Your task to perform on an android device: Go to calendar. Show me events next week Image 0: 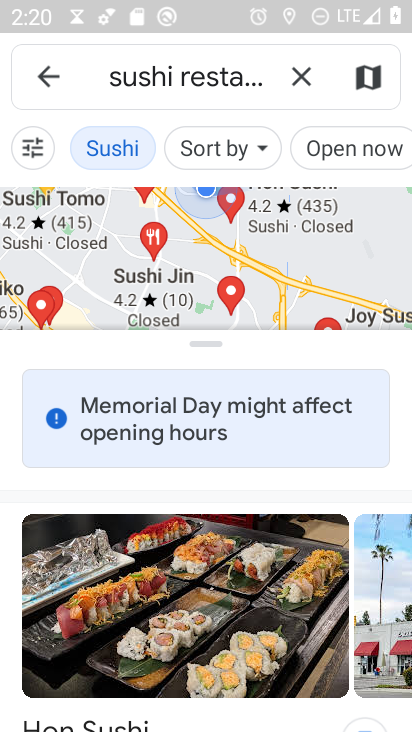
Step 0: press home button
Your task to perform on an android device: Go to calendar. Show me events next week Image 1: 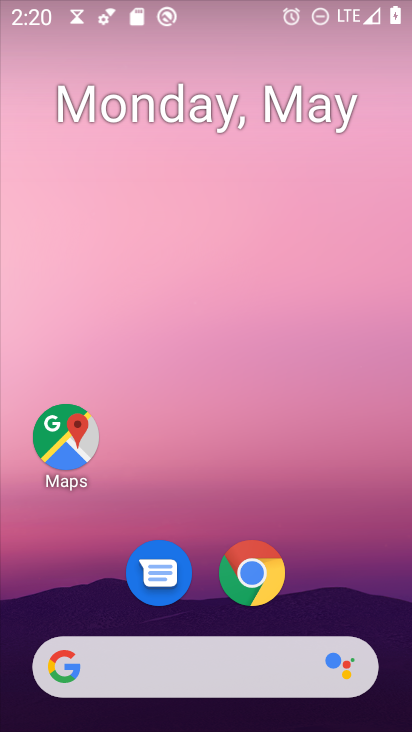
Step 1: drag from (246, 651) to (240, 33)
Your task to perform on an android device: Go to calendar. Show me events next week Image 2: 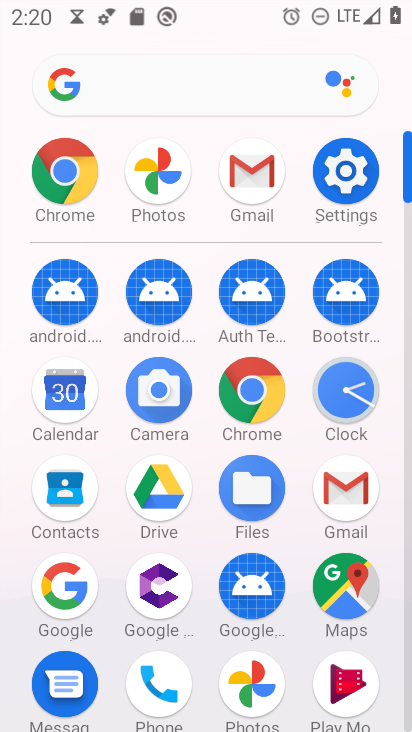
Step 2: click (55, 401)
Your task to perform on an android device: Go to calendar. Show me events next week Image 3: 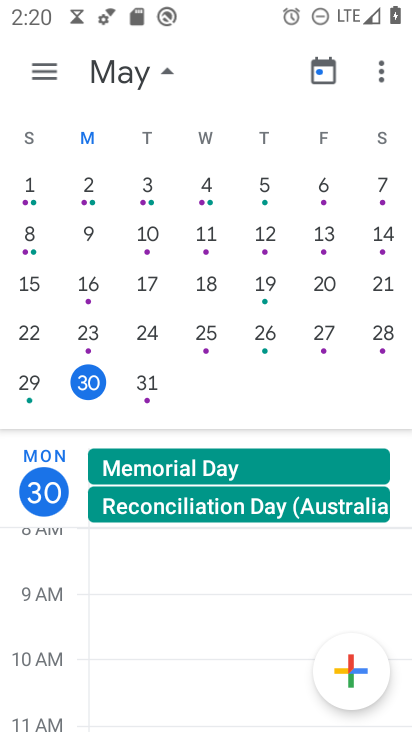
Step 3: drag from (352, 341) to (0, 317)
Your task to perform on an android device: Go to calendar. Show me events next week Image 4: 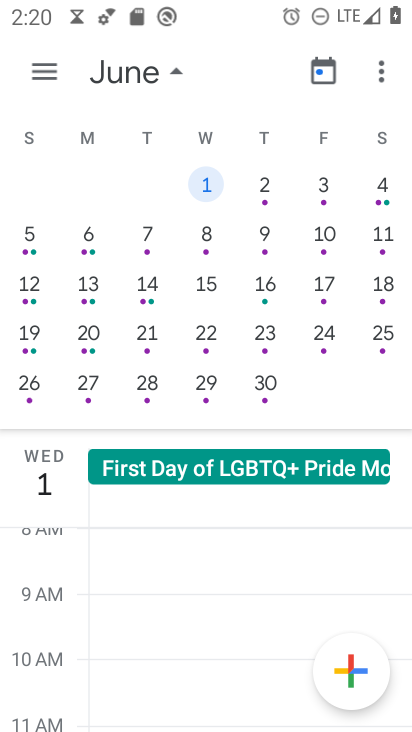
Step 4: click (319, 189)
Your task to perform on an android device: Go to calendar. Show me events next week Image 5: 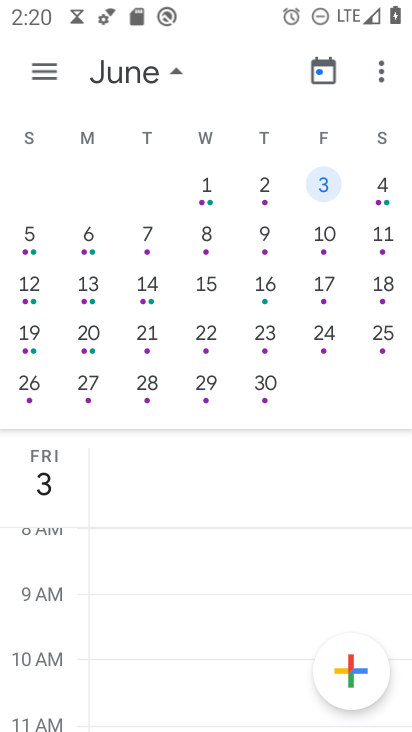
Step 5: click (59, 68)
Your task to perform on an android device: Go to calendar. Show me events next week Image 6: 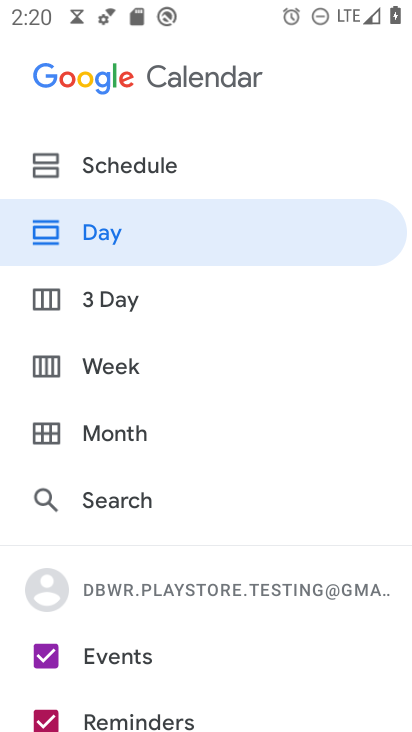
Step 6: click (120, 358)
Your task to perform on an android device: Go to calendar. Show me events next week Image 7: 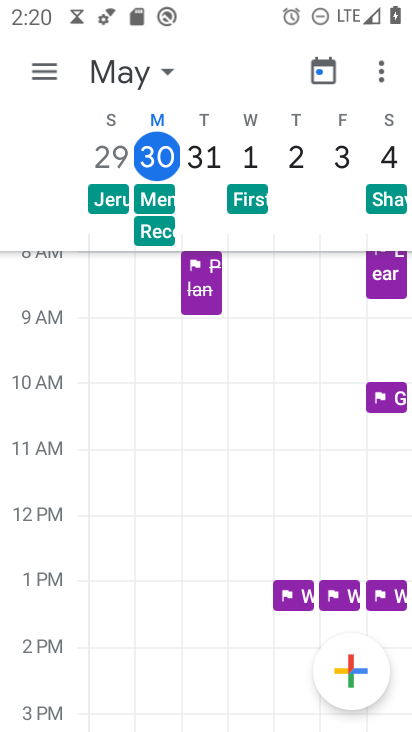
Step 7: task complete